Your task to perform on an android device: Search for vegetarian restaurants on Maps Image 0: 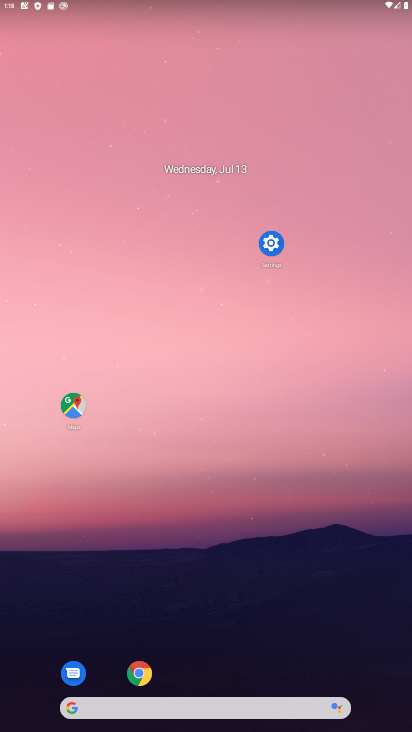
Step 0: drag from (206, 693) to (178, 53)
Your task to perform on an android device: Search for vegetarian restaurants on Maps Image 1: 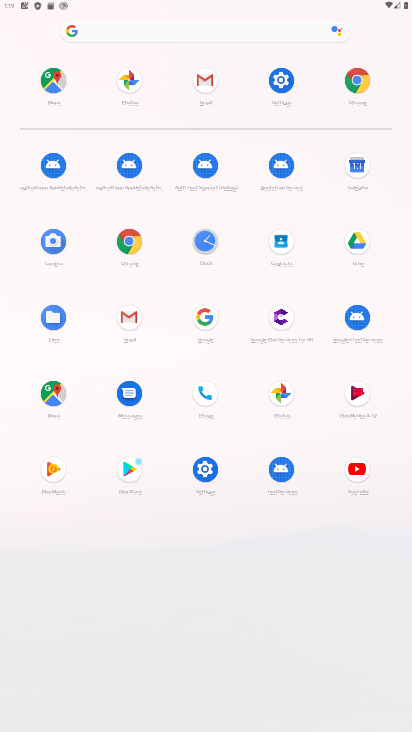
Step 1: click (53, 395)
Your task to perform on an android device: Search for vegetarian restaurants on Maps Image 2: 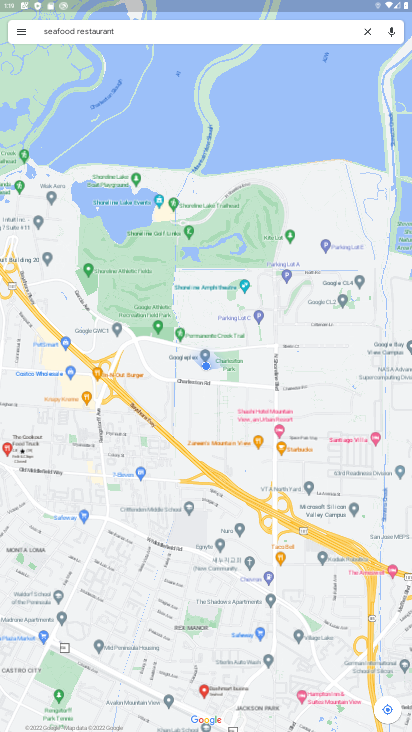
Step 2: click (168, 32)
Your task to perform on an android device: Search for vegetarian restaurants on Maps Image 3: 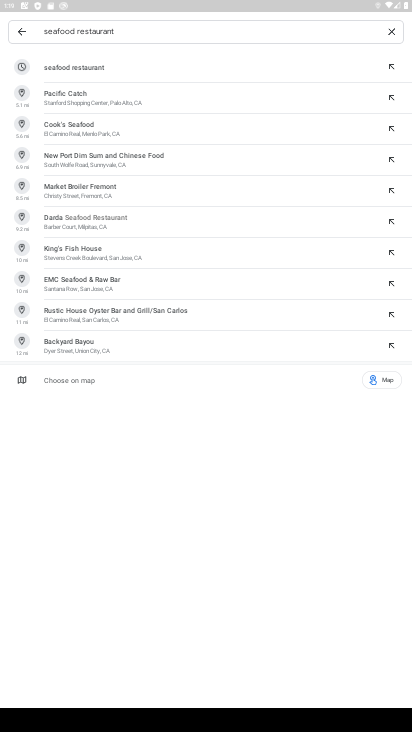
Step 3: click (20, 33)
Your task to perform on an android device: Search for vegetarian restaurants on Maps Image 4: 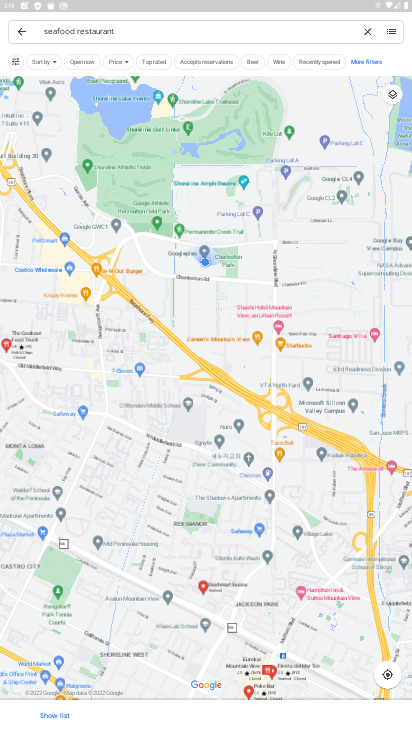
Step 4: click (370, 29)
Your task to perform on an android device: Search for vegetarian restaurants on Maps Image 5: 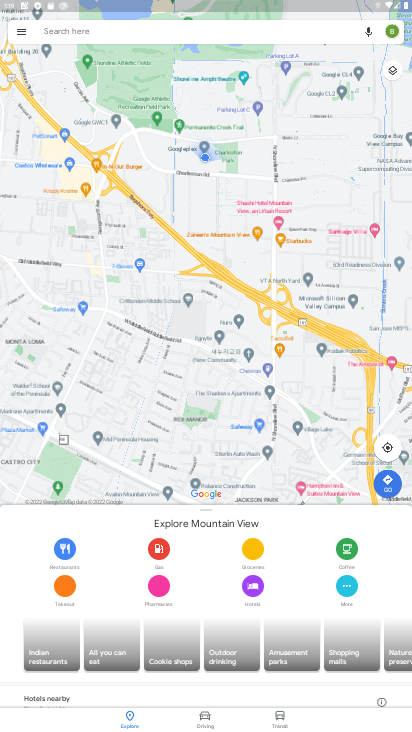
Step 5: click (135, 34)
Your task to perform on an android device: Search for vegetarian restaurants on Maps Image 6: 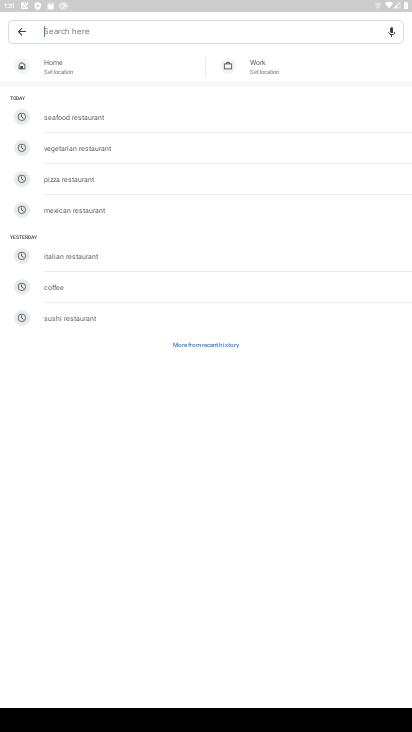
Step 6: click (70, 151)
Your task to perform on an android device: Search for vegetarian restaurants on Maps Image 7: 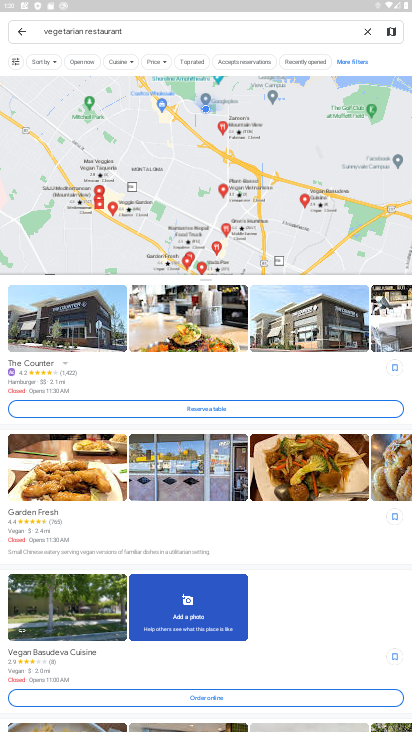
Step 7: task complete